Your task to perform on an android device: star an email in the gmail app Image 0: 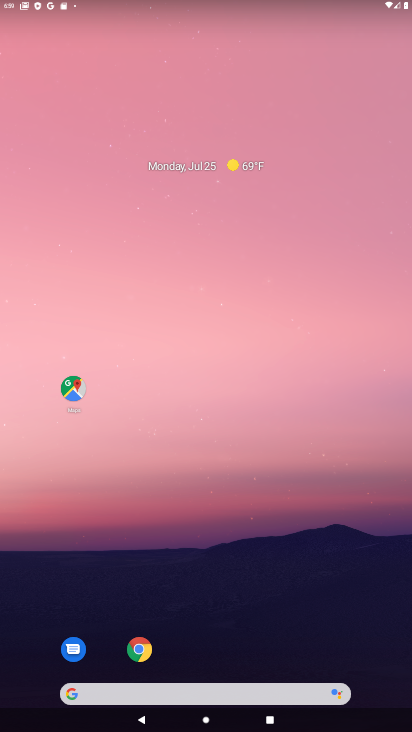
Step 0: drag from (164, 554) to (186, 1)
Your task to perform on an android device: star an email in the gmail app Image 1: 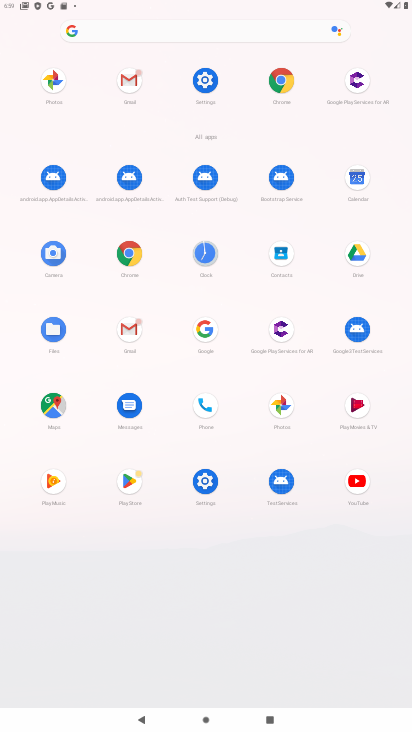
Step 1: click (139, 80)
Your task to perform on an android device: star an email in the gmail app Image 2: 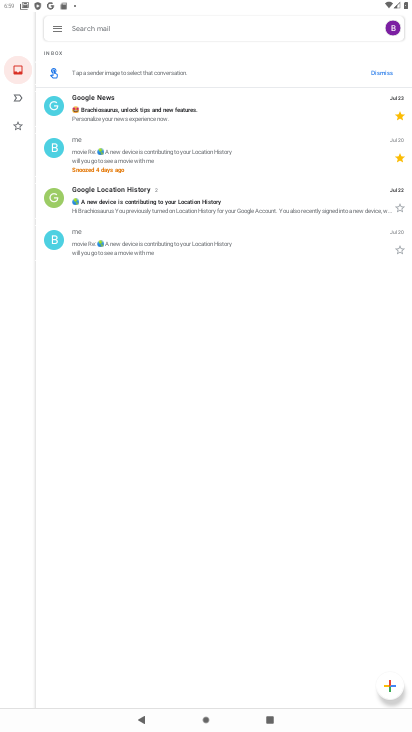
Step 2: click (398, 208)
Your task to perform on an android device: star an email in the gmail app Image 3: 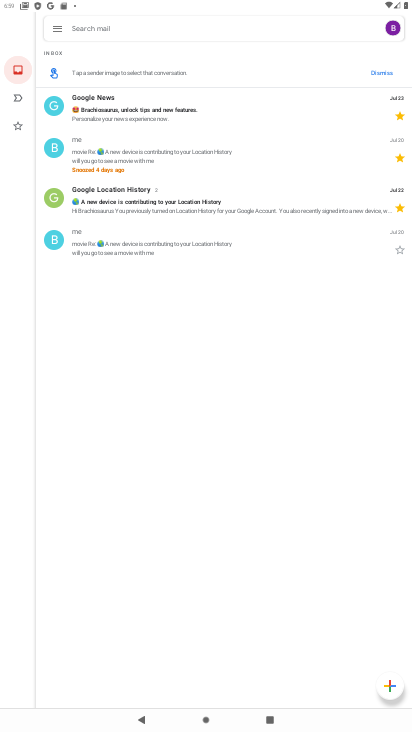
Step 3: task complete